Your task to perform on an android device: Show me recent news Image 0: 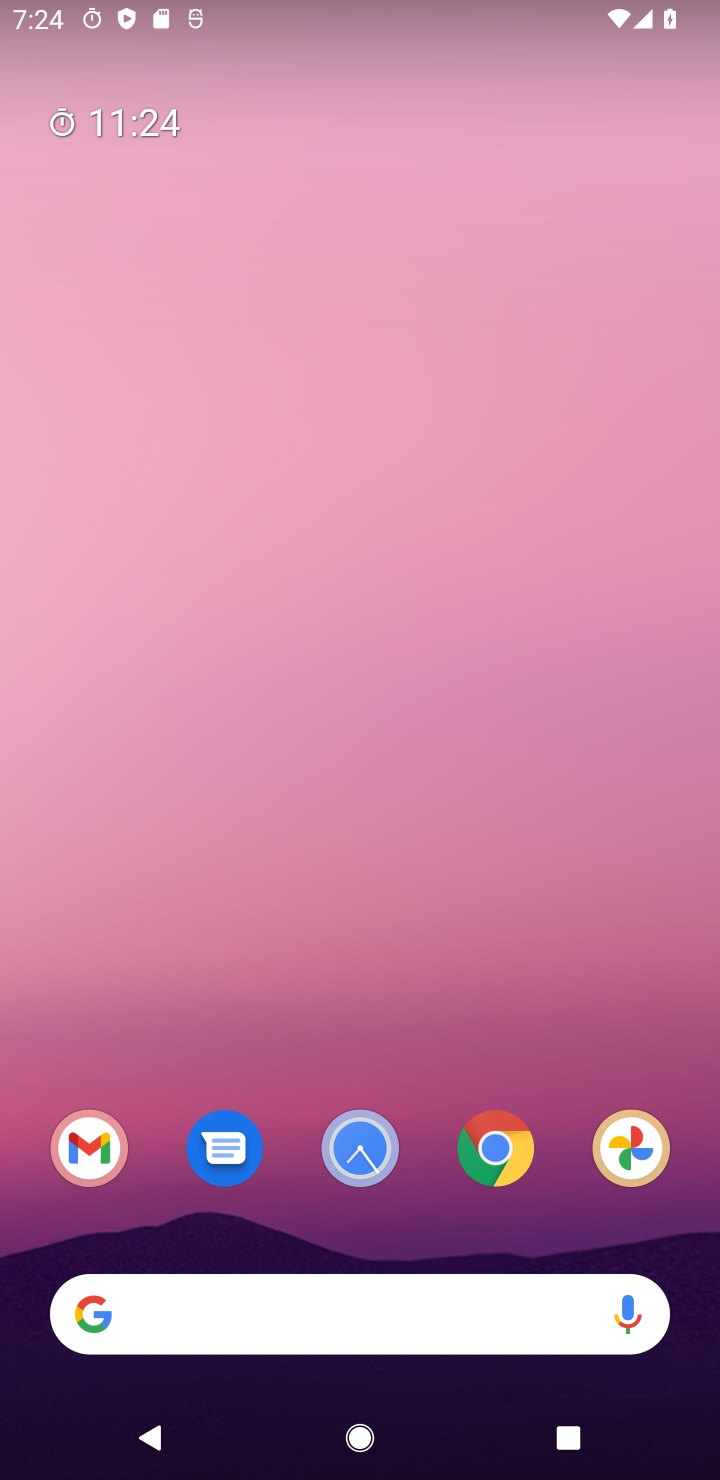
Step 0: press home button
Your task to perform on an android device: Show me recent news Image 1: 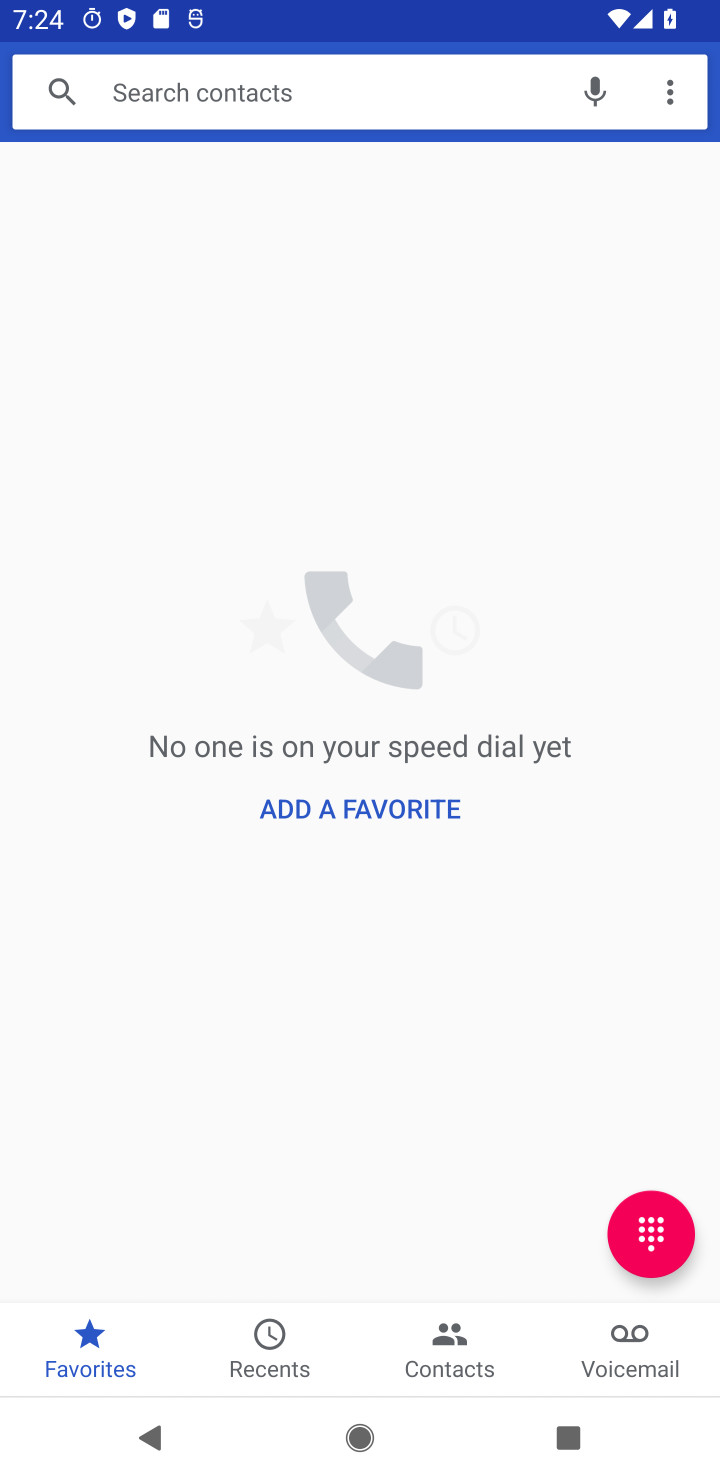
Step 1: drag from (346, 1024) to (161, 536)
Your task to perform on an android device: Show me recent news Image 2: 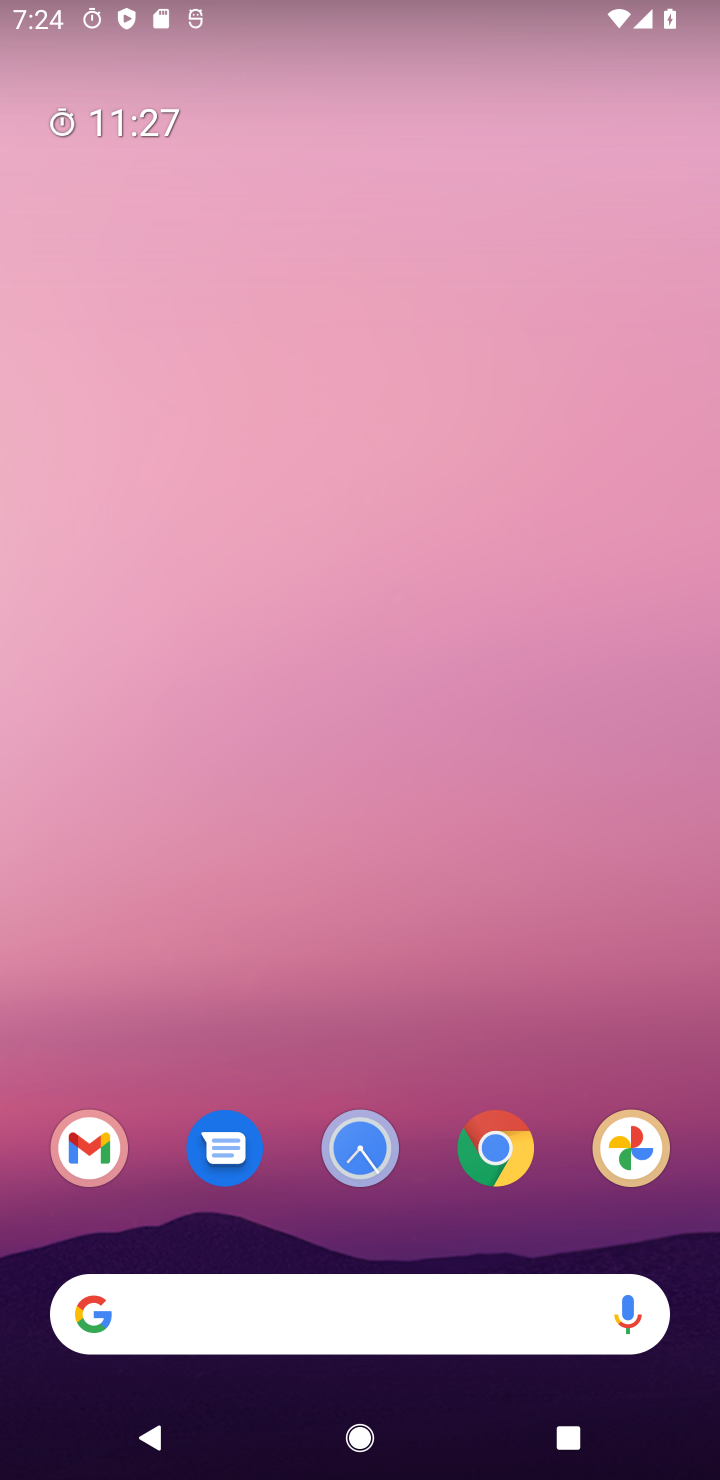
Step 2: drag from (433, 999) to (451, 19)
Your task to perform on an android device: Show me recent news Image 3: 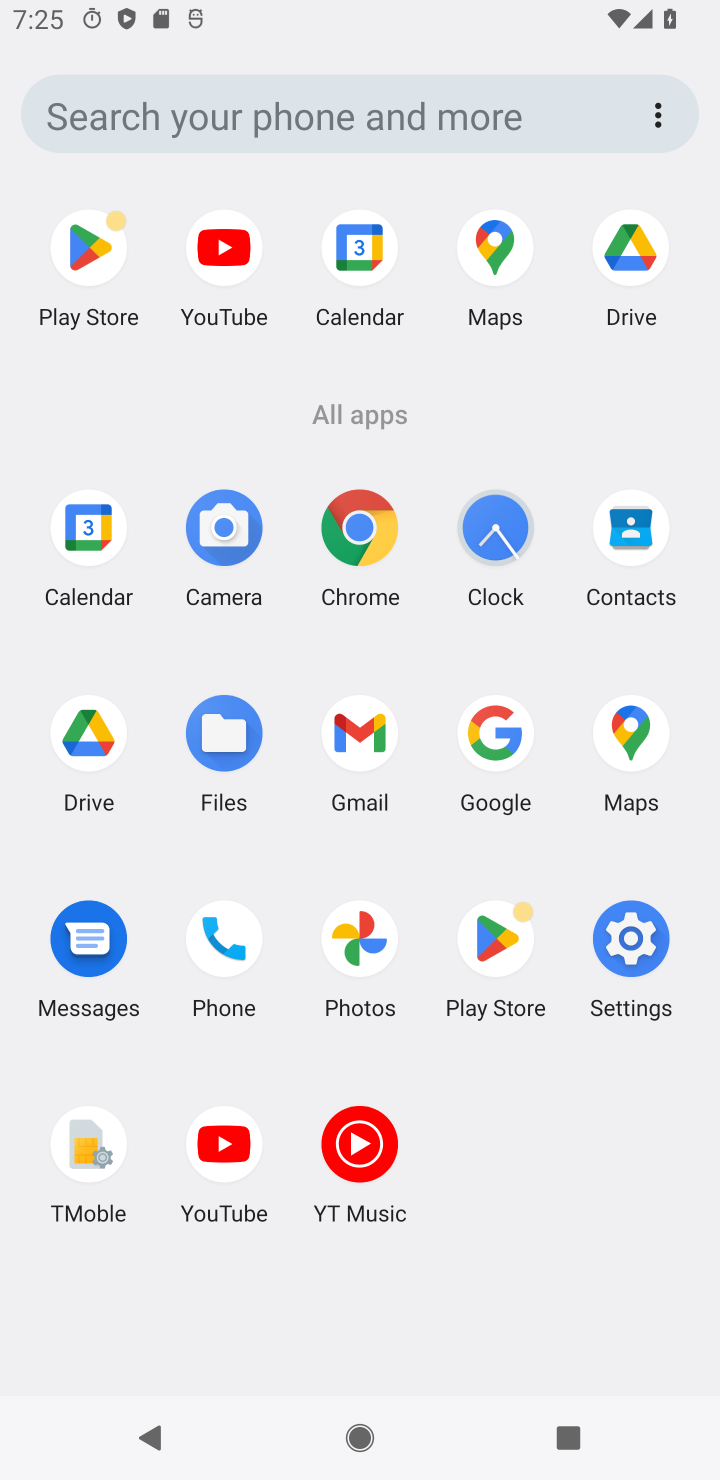
Step 3: click (359, 505)
Your task to perform on an android device: Show me recent news Image 4: 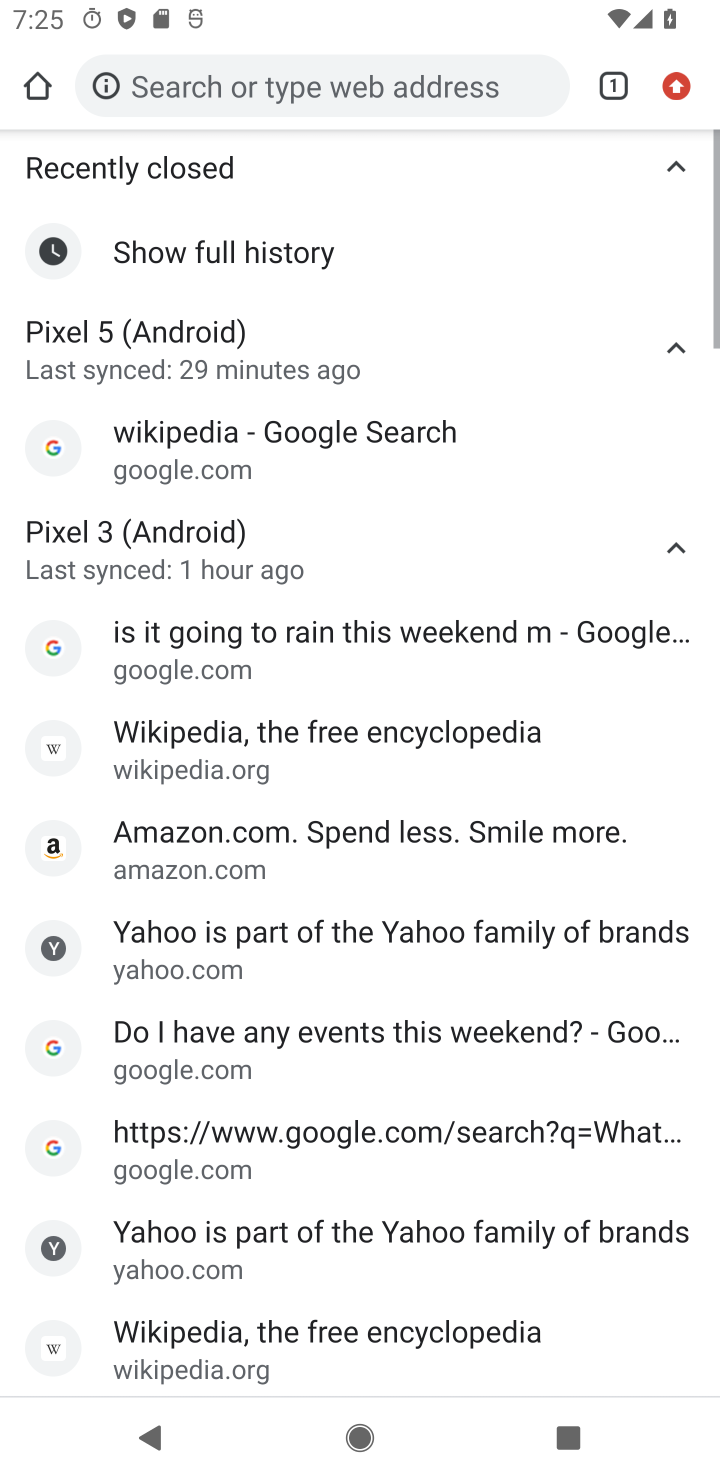
Step 4: click (256, 95)
Your task to perform on an android device: Show me recent news Image 5: 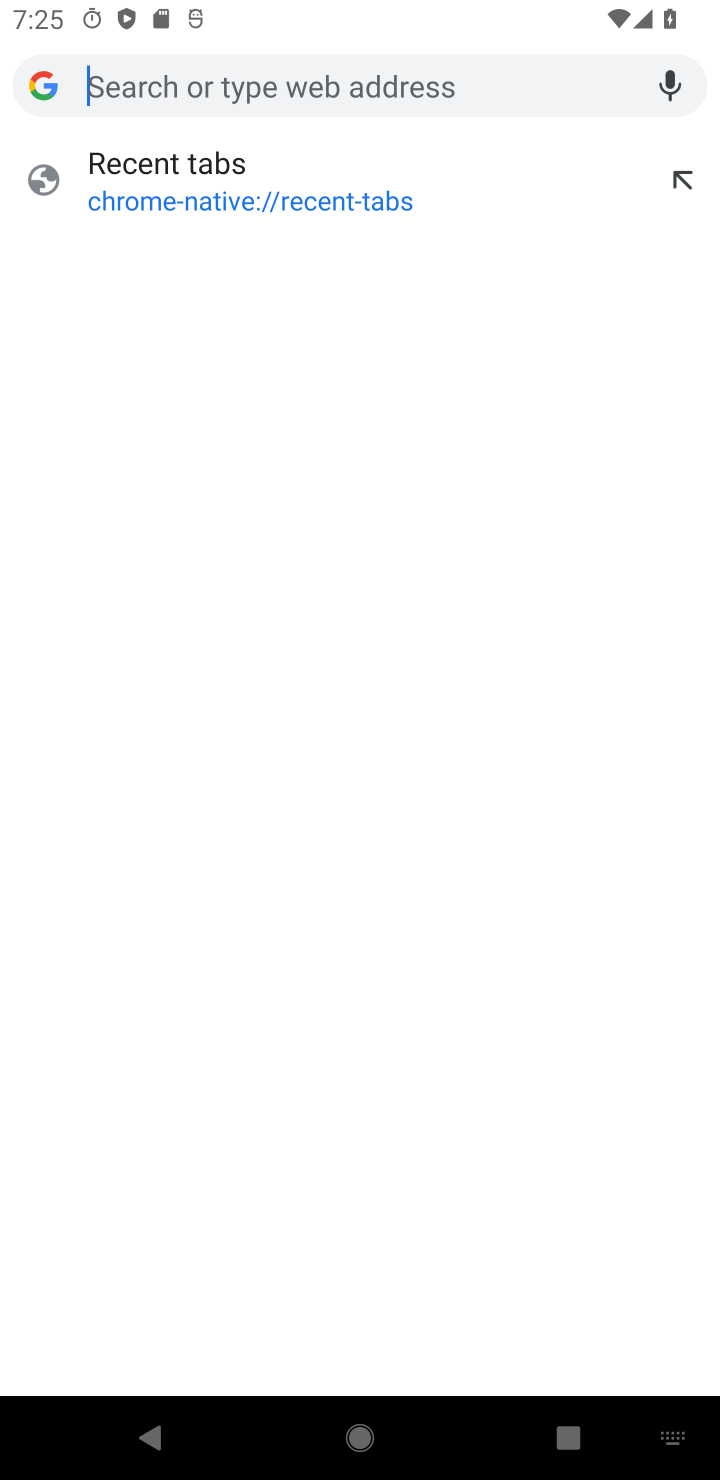
Step 5: type "Show me recent news"
Your task to perform on an android device: Show me recent news Image 6: 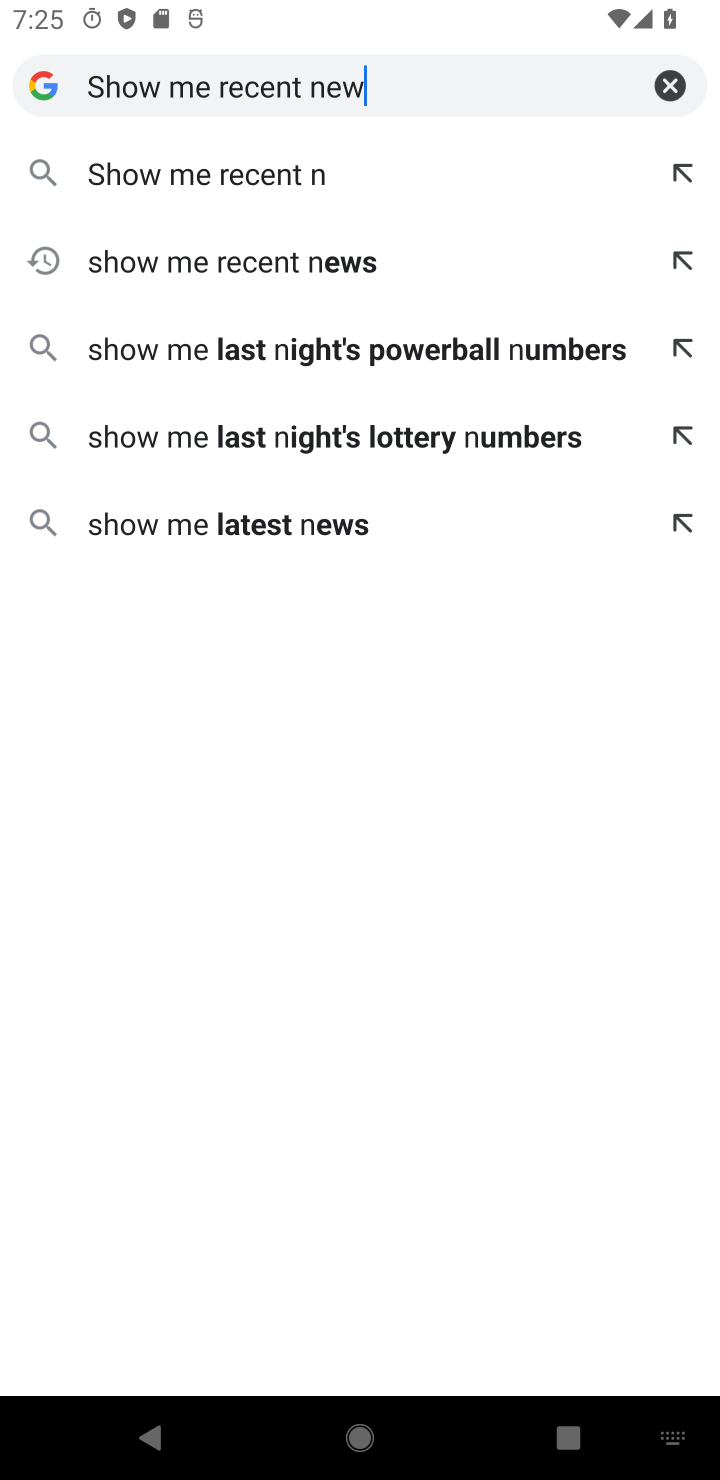
Step 6: type ""
Your task to perform on an android device: Show me recent news Image 7: 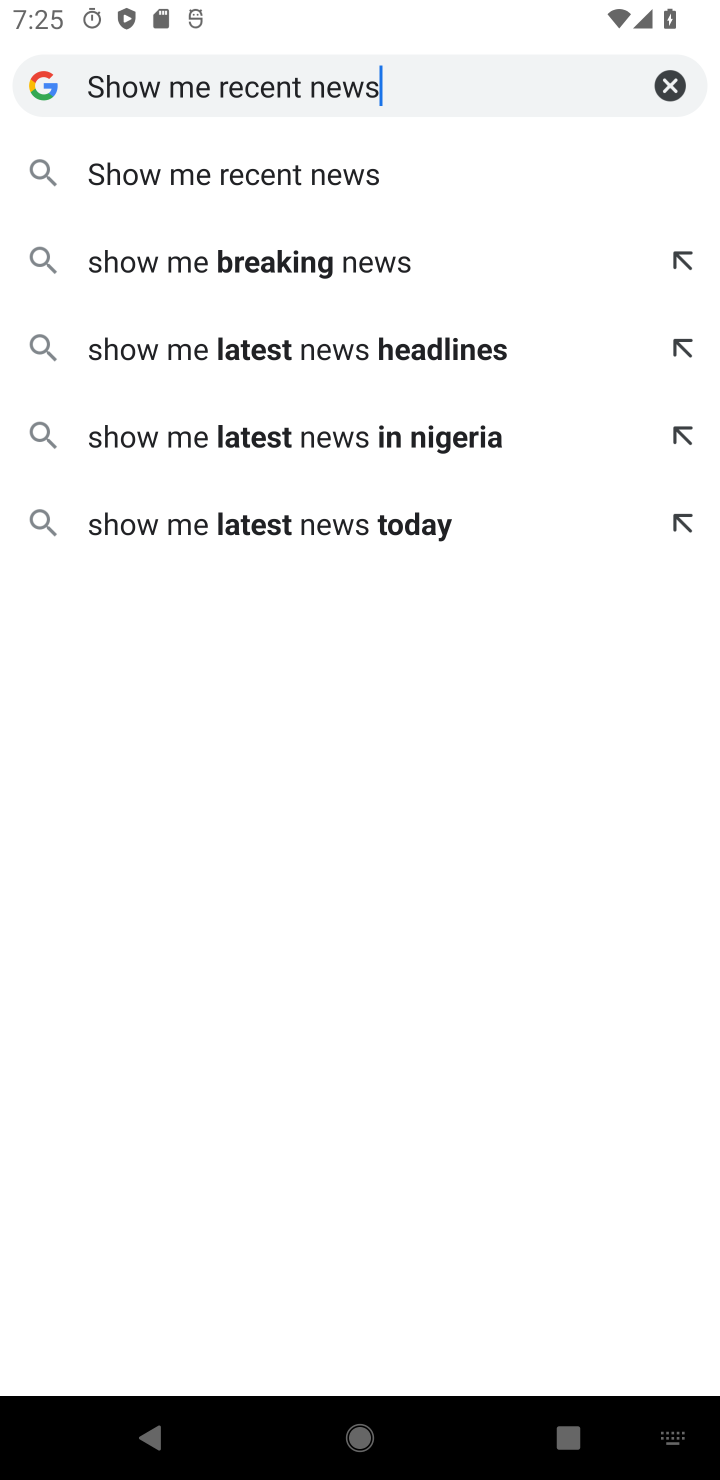
Step 7: click (171, 163)
Your task to perform on an android device: Show me recent news Image 8: 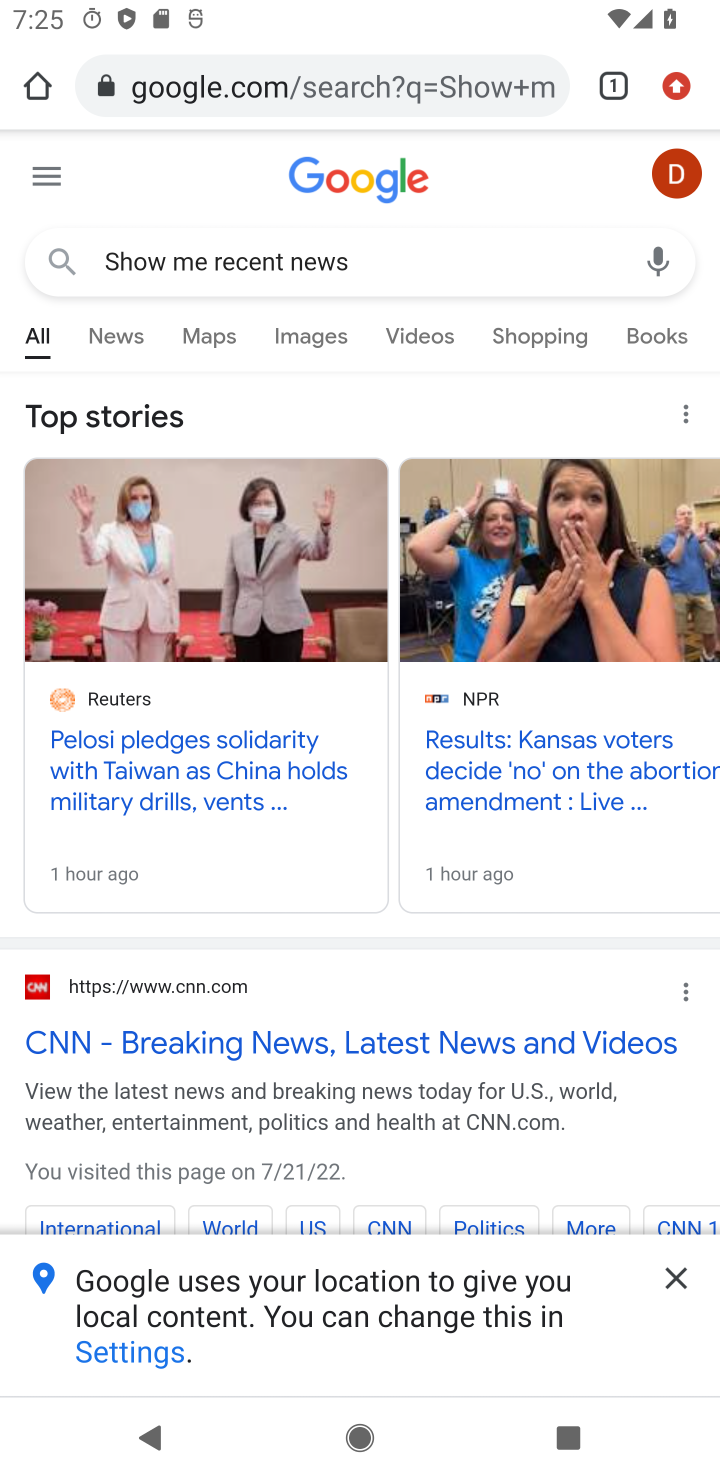
Step 8: task complete